Your task to perform on an android device: empty trash in google photos Image 0: 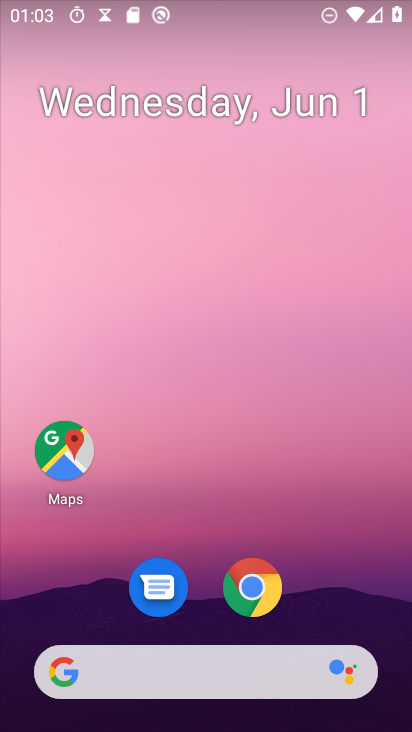
Step 0: drag from (316, 550) to (270, 6)
Your task to perform on an android device: empty trash in google photos Image 1: 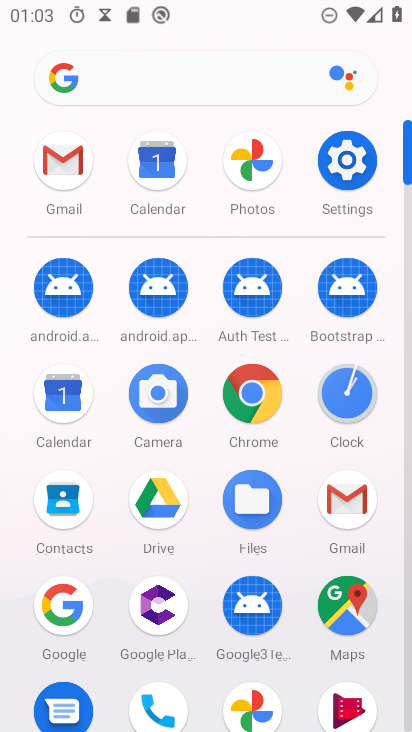
Step 1: click (256, 168)
Your task to perform on an android device: empty trash in google photos Image 2: 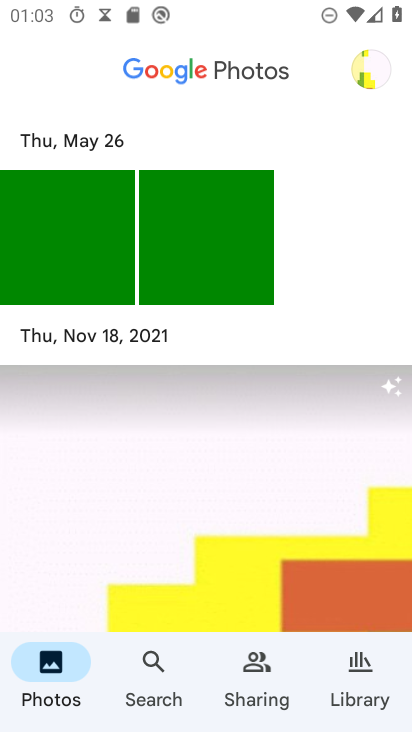
Step 2: click (343, 671)
Your task to perform on an android device: empty trash in google photos Image 3: 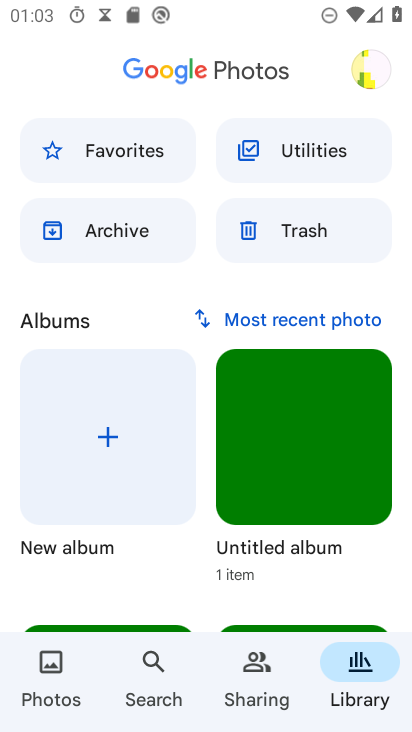
Step 3: click (243, 240)
Your task to perform on an android device: empty trash in google photos Image 4: 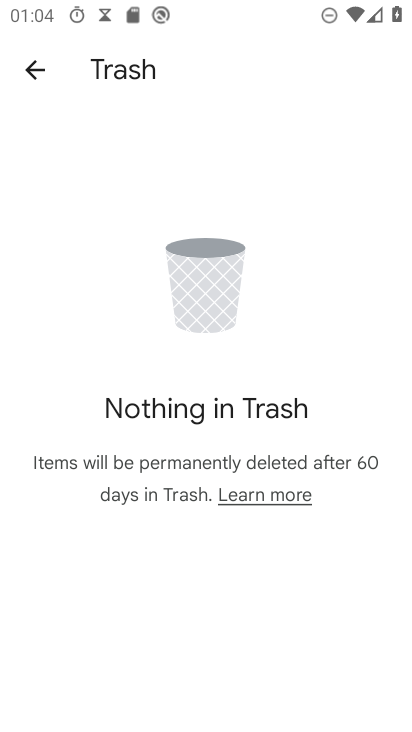
Step 4: task complete